Your task to perform on an android device: toggle sleep mode Image 0: 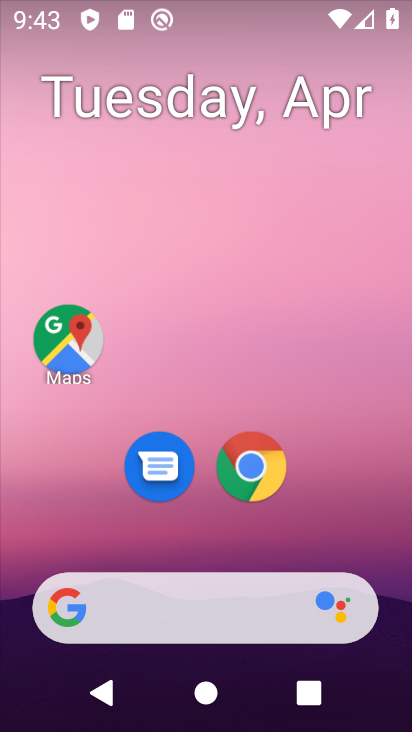
Step 0: drag from (206, 622) to (206, 66)
Your task to perform on an android device: toggle sleep mode Image 1: 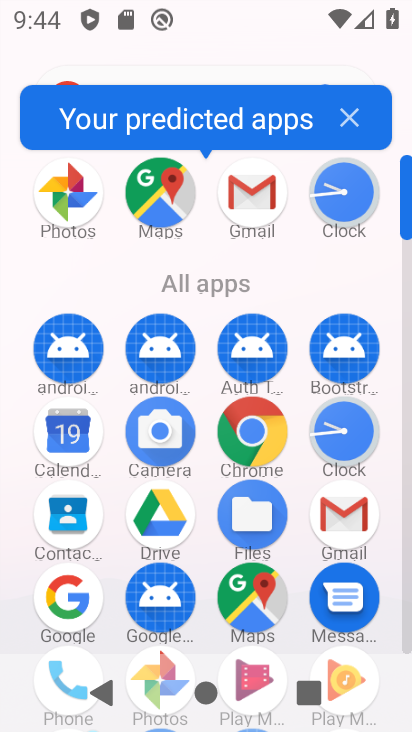
Step 1: drag from (203, 632) to (177, 117)
Your task to perform on an android device: toggle sleep mode Image 2: 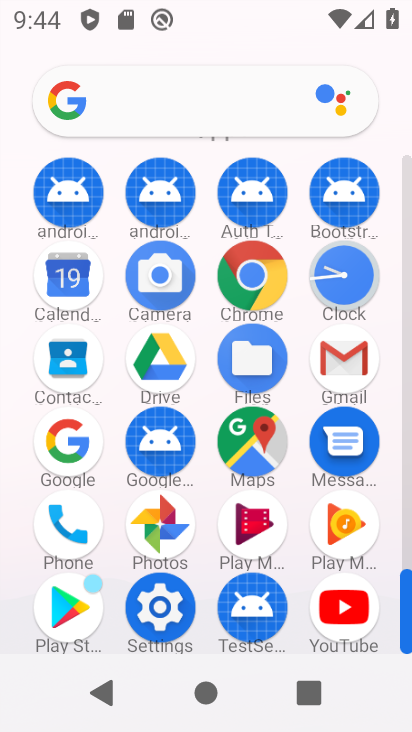
Step 2: click (157, 607)
Your task to perform on an android device: toggle sleep mode Image 3: 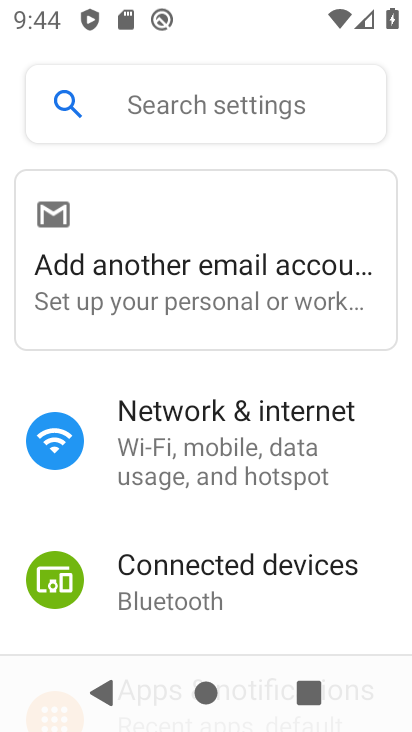
Step 3: drag from (246, 627) to (234, 223)
Your task to perform on an android device: toggle sleep mode Image 4: 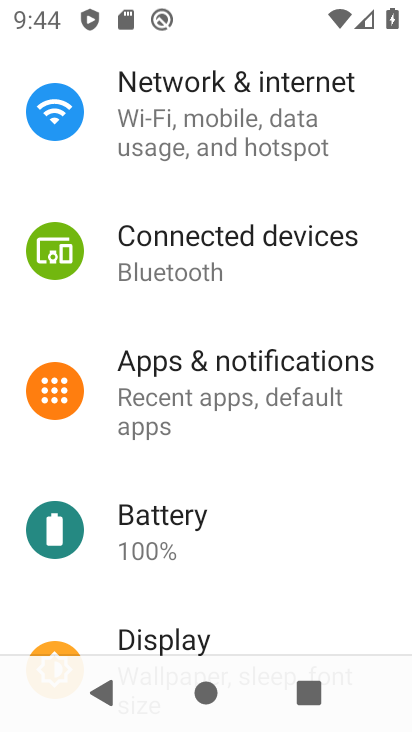
Step 4: drag from (231, 624) to (221, 175)
Your task to perform on an android device: toggle sleep mode Image 5: 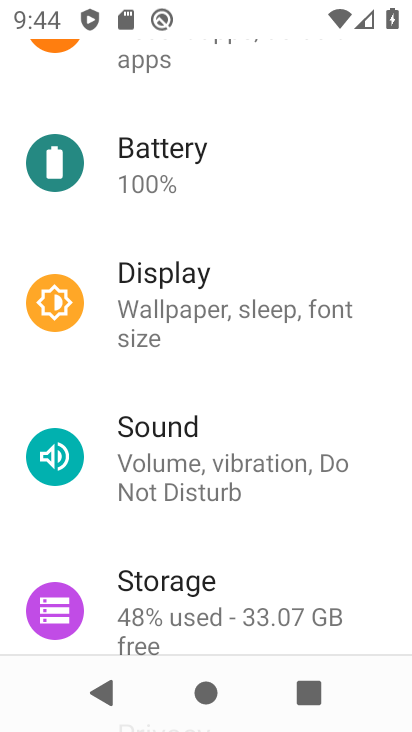
Step 5: drag from (243, 587) to (248, 115)
Your task to perform on an android device: toggle sleep mode Image 6: 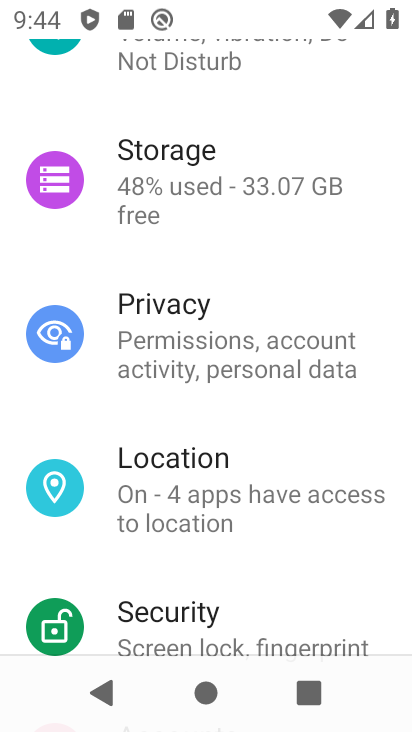
Step 6: drag from (234, 601) to (238, 122)
Your task to perform on an android device: toggle sleep mode Image 7: 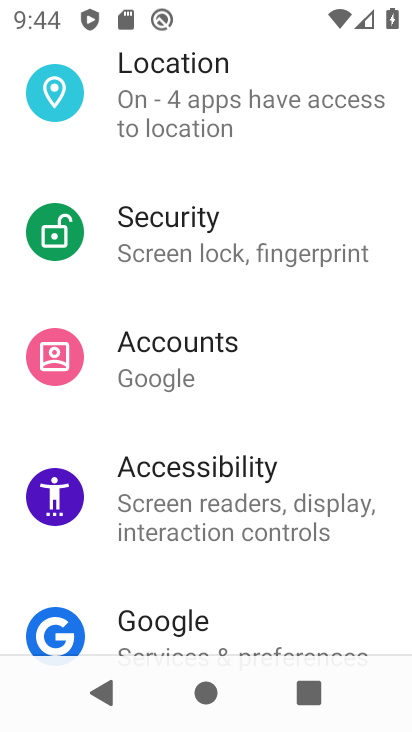
Step 7: drag from (226, 580) to (226, 92)
Your task to perform on an android device: toggle sleep mode Image 8: 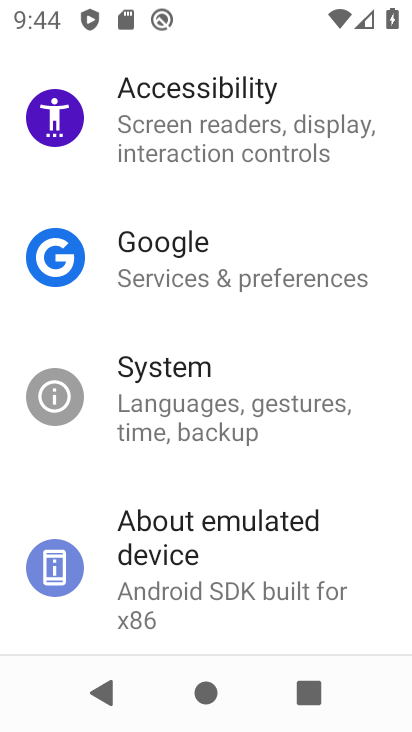
Step 8: drag from (254, 212) to (274, 529)
Your task to perform on an android device: toggle sleep mode Image 9: 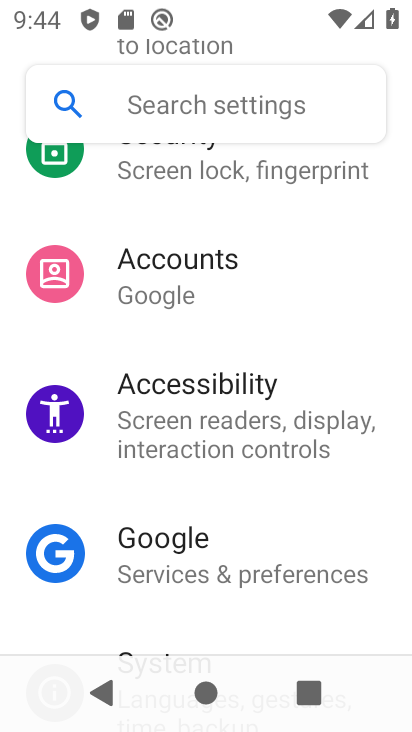
Step 9: drag from (241, 227) to (246, 549)
Your task to perform on an android device: toggle sleep mode Image 10: 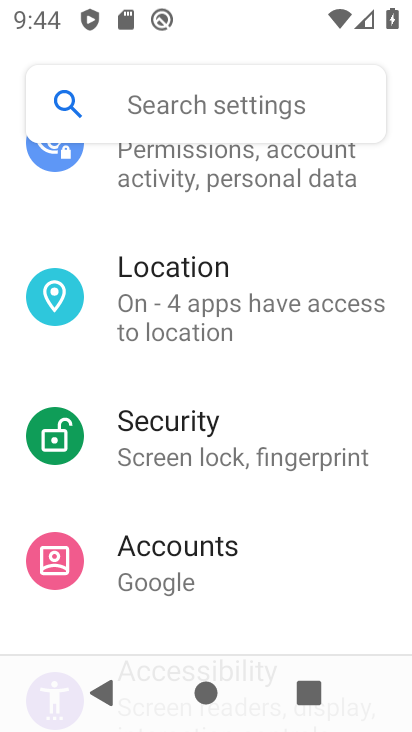
Step 10: drag from (233, 213) to (243, 509)
Your task to perform on an android device: toggle sleep mode Image 11: 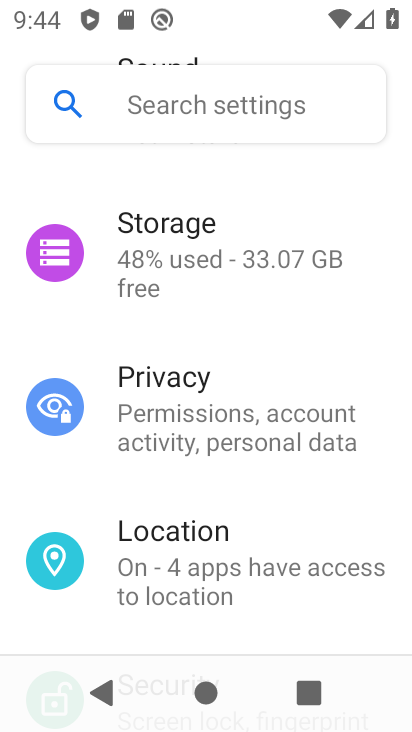
Step 11: drag from (241, 189) to (250, 529)
Your task to perform on an android device: toggle sleep mode Image 12: 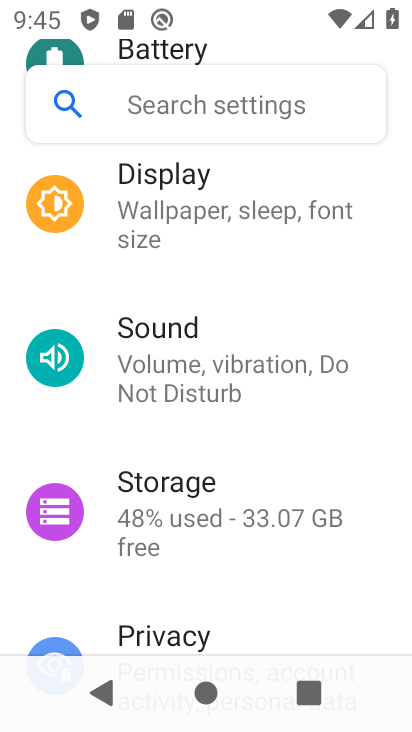
Step 12: click (157, 206)
Your task to perform on an android device: toggle sleep mode Image 13: 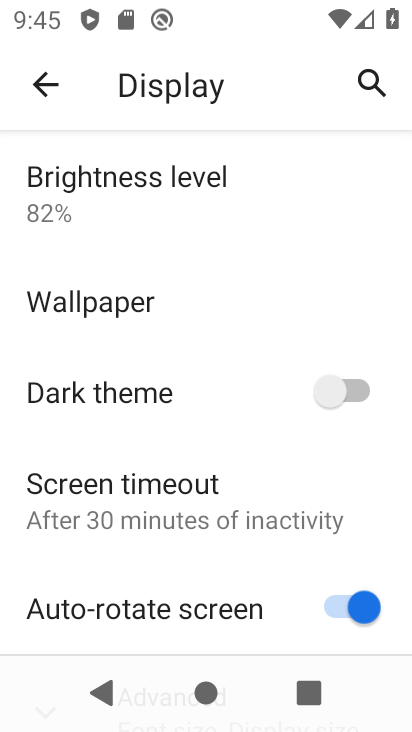
Step 13: task complete